Your task to perform on an android device: Open CNN.com Image 0: 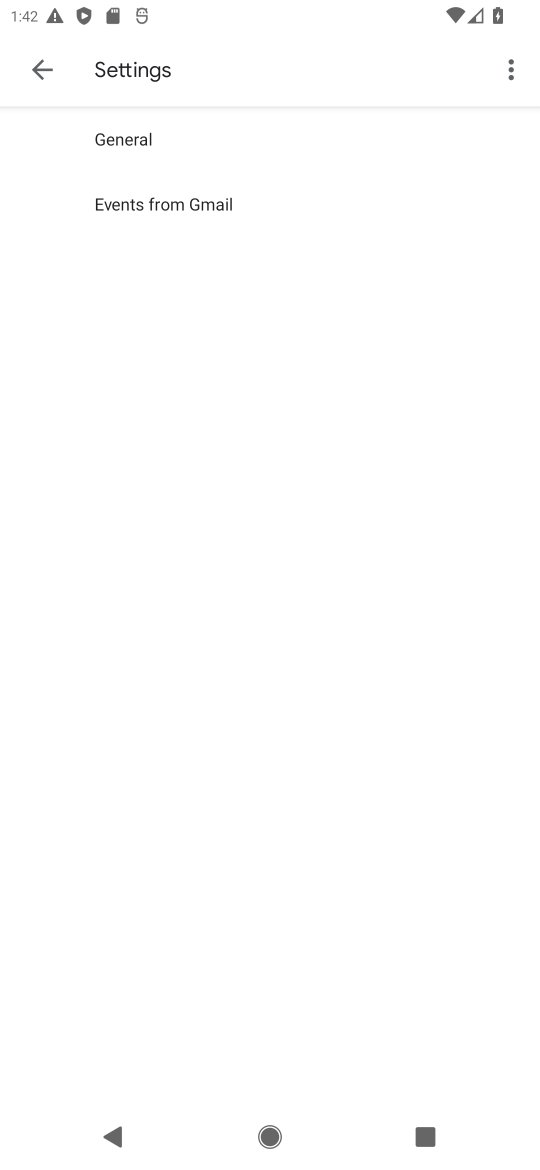
Step 0: press home button
Your task to perform on an android device: Open CNN.com Image 1: 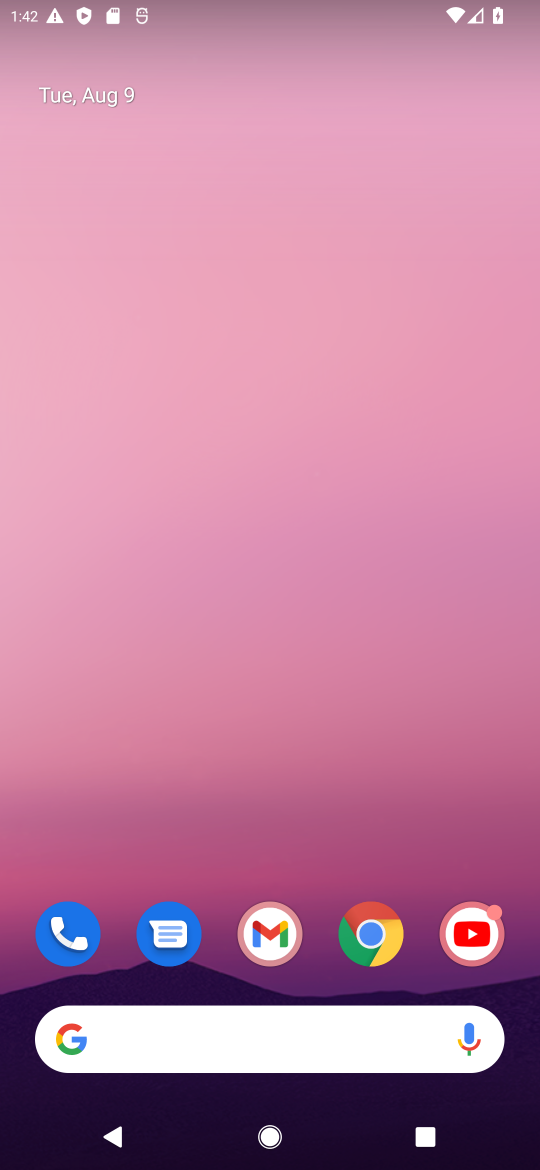
Step 1: click (352, 931)
Your task to perform on an android device: Open CNN.com Image 2: 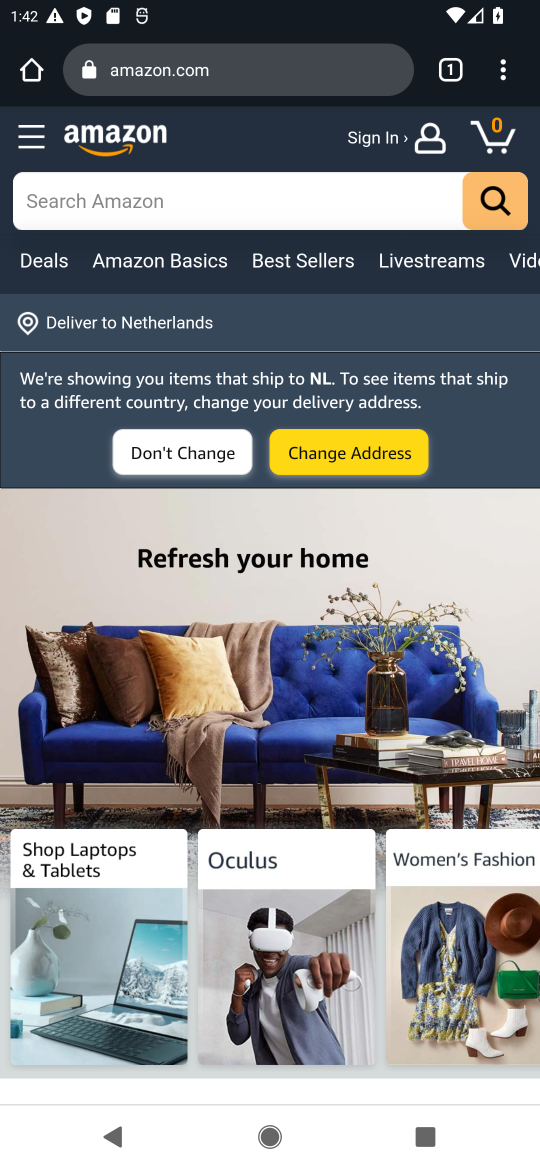
Step 2: click (280, 207)
Your task to perform on an android device: Open CNN.com Image 3: 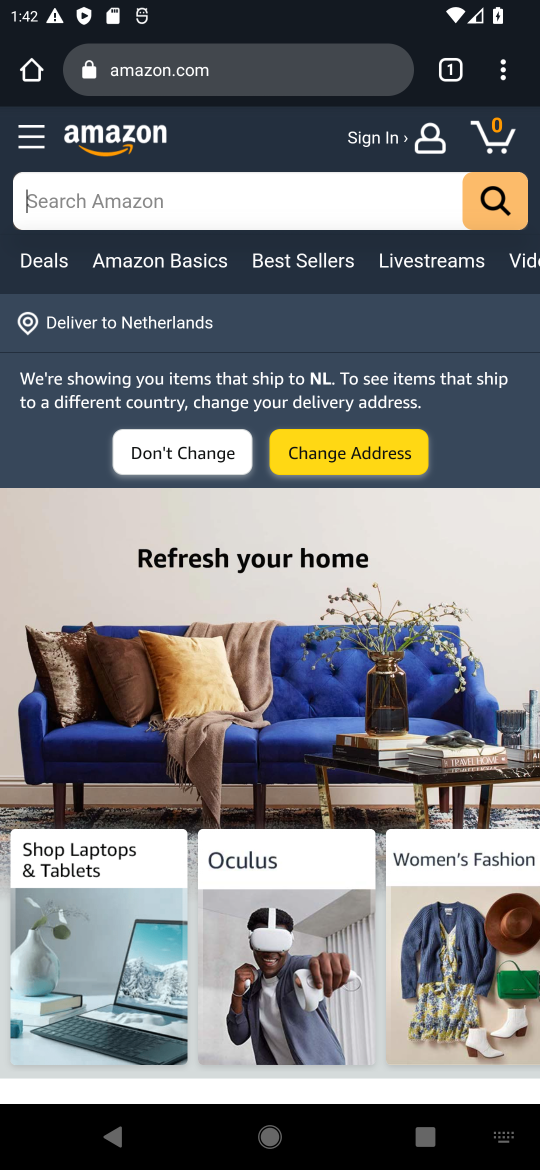
Step 3: click (240, 81)
Your task to perform on an android device: Open CNN.com Image 4: 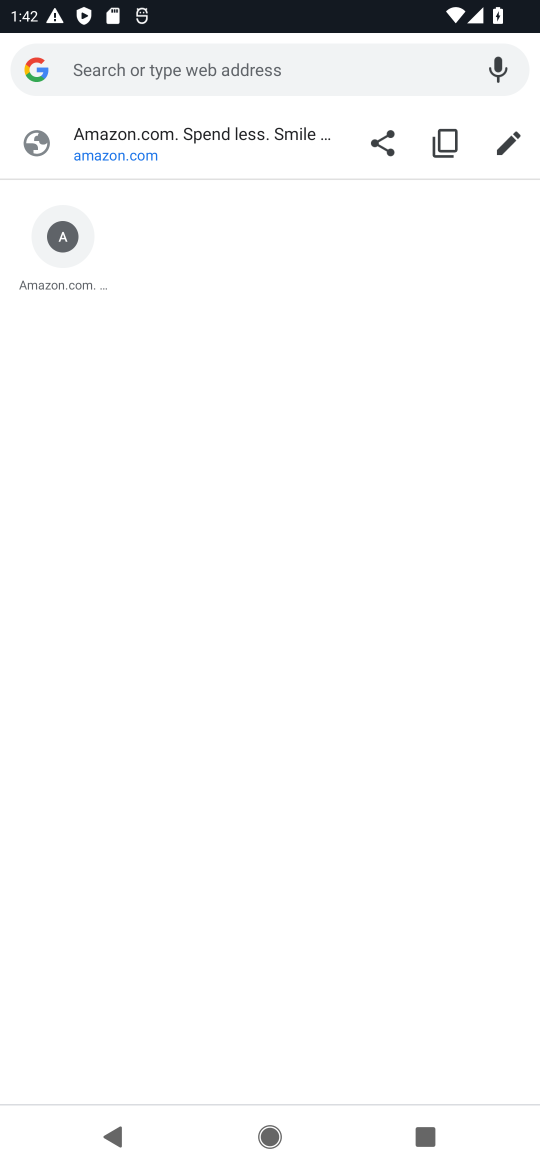
Step 4: type "cnn.com"
Your task to perform on an android device: Open CNN.com Image 5: 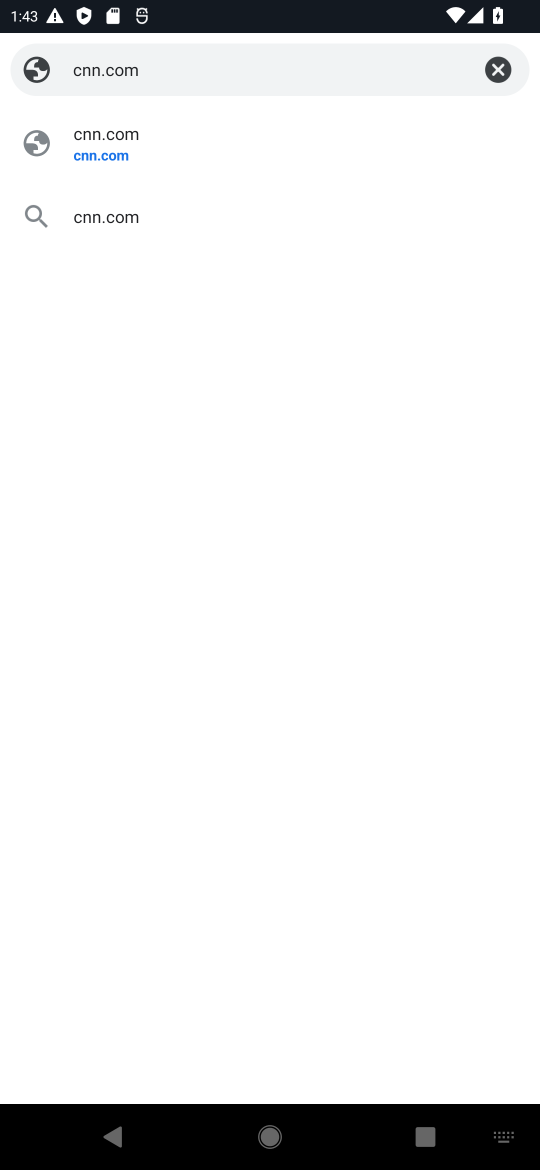
Step 5: click (438, 152)
Your task to perform on an android device: Open CNN.com Image 6: 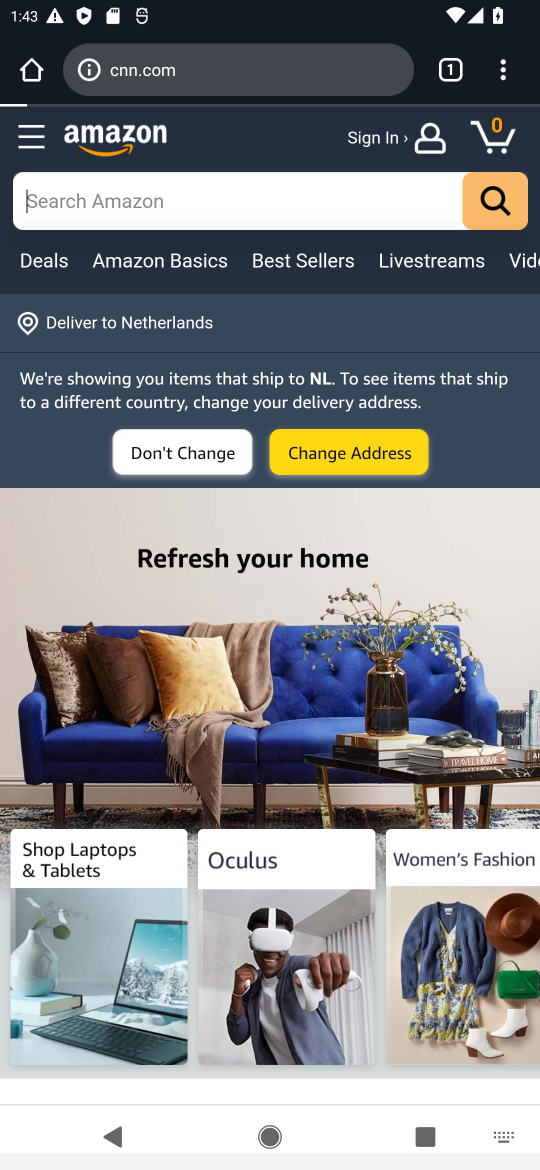
Step 6: task complete